Your task to perform on an android device: Go to Android settings Image 0: 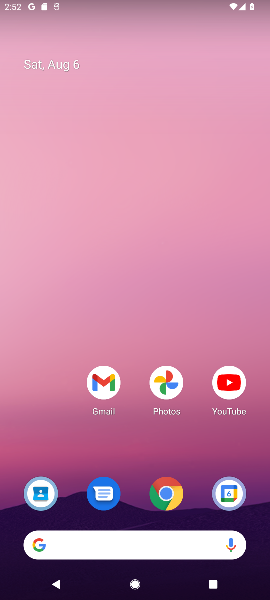
Step 0: drag from (157, 500) to (173, 49)
Your task to perform on an android device: Go to Android settings Image 1: 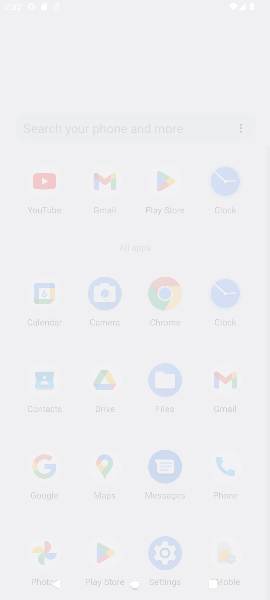
Step 1: drag from (196, 331) to (151, 36)
Your task to perform on an android device: Go to Android settings Image 2: 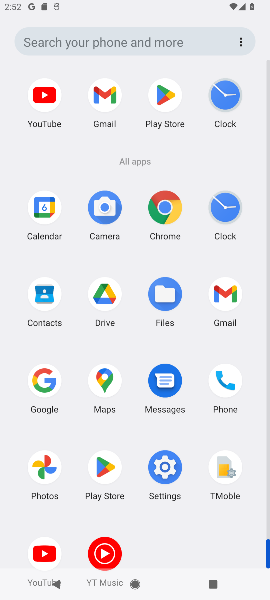
Step 2: drag from (151, 326) to (125, 8)
Your task to perform on an android device: Go to Android settings Image 3: 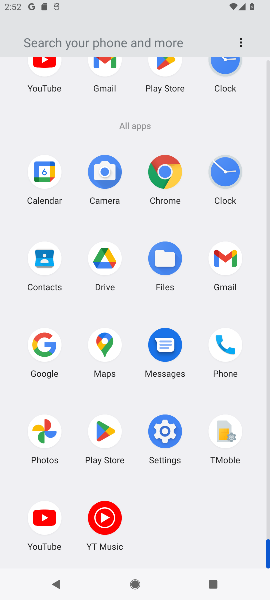
Step 3: click (158, 429)
Your task to perform on an android device: Go to Android settings Image 4: 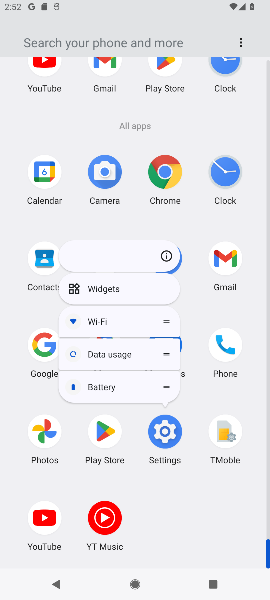
Step 4: click (159, 434)
Your task to perform on an android device: Go to Android settings Image 5: 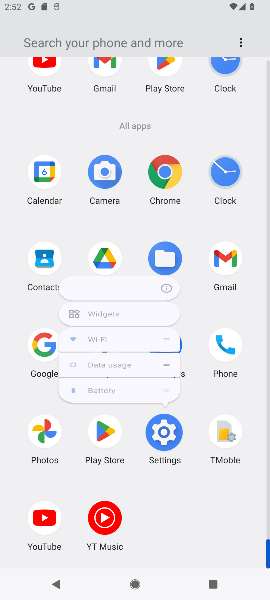
Step 5: click (158, 435)
Your task to perform on an android device: Go to Android settings Image 6: 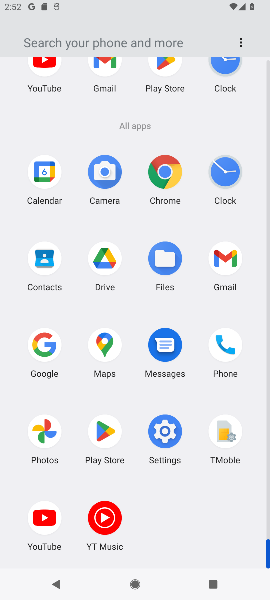
Step 6: click (159, 438)
Your task to perform on an android device: Go to Android settings Image 7: 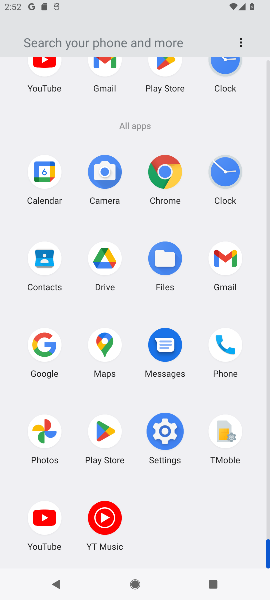
Step 7: click (159, 438)
Your task to perform on an android device: Go to Android settings Image 8: 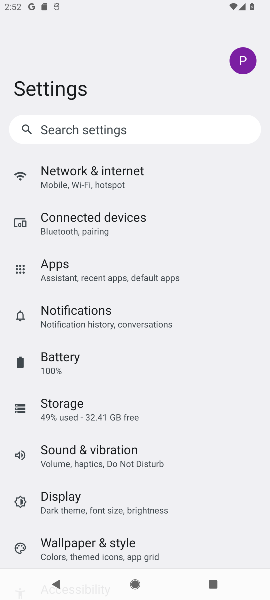
Step 8: drag from (147, 428) to (158, 149)
Your task to perform on an android device: Go to Android settings Image 9: 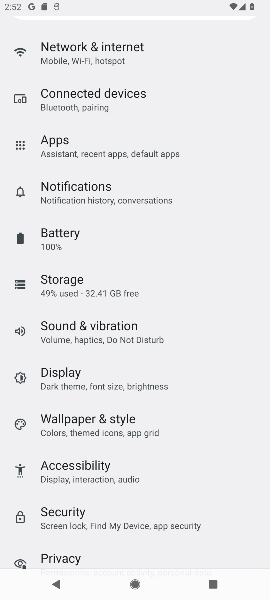
Step 9: drag from (125, 457) to (125, 106)
Your task to perform on an android device: Go to Android settings Image 10: 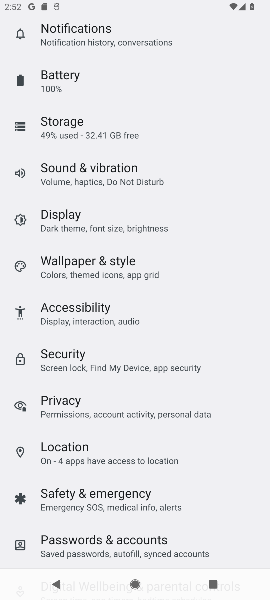
Step 10: drag from (125, 411) to (125, 162)
Your task to perform on an android device: Go to Android settings Image 11: 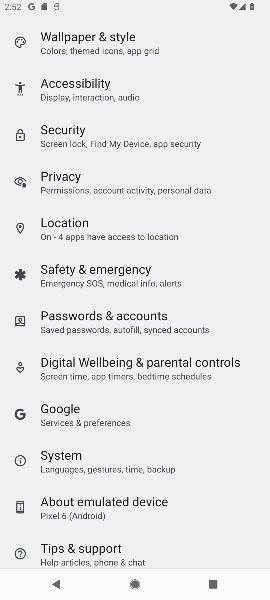
Step 11: drag from (144, 528) to (104, 233)
Your task to perform on an android device: Go to Android settings Image 12: 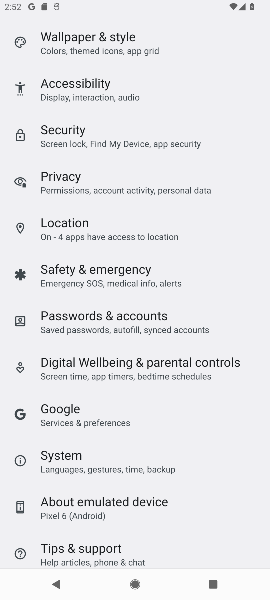
Step 12: drag from (71, 485) to (56, 192)
Your task to perform on an android device: Go to Android settings Image 13: 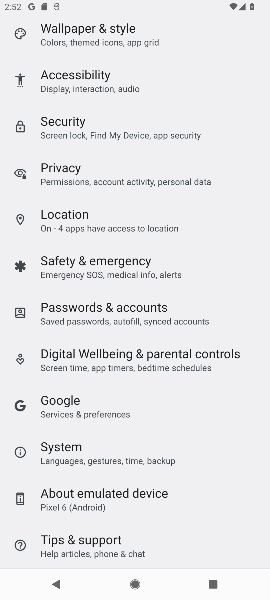
Step 13: click (103, 492)
Your task to perform on an android device: Go to Android settings Image 14: 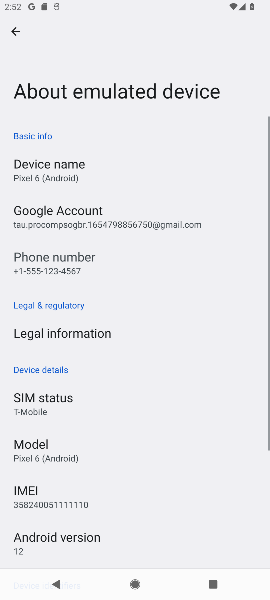
Step 14: task complete